Your task to perform on an android device: Go to Yahoo.com Image 0: 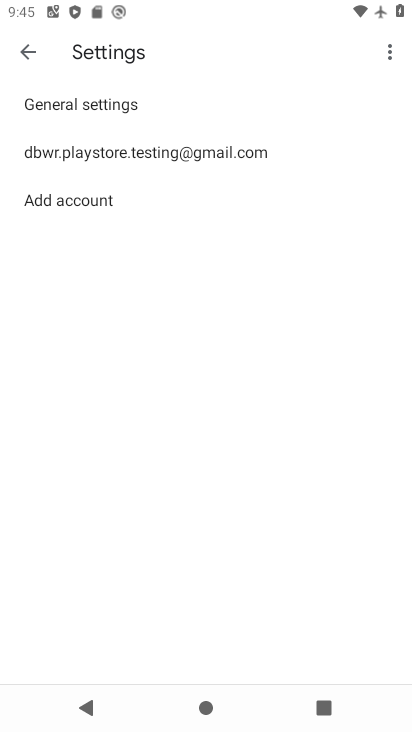
Step 0: press home button
Your task to perform on an android device: Go to Yahoo.com Image 1: 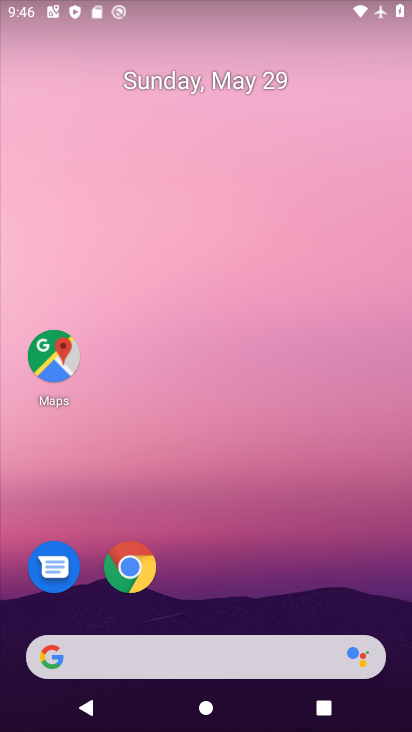
Step 1: click (128, 565)
Your task to perform on an android device: Go to Yahoo.com Image 2: 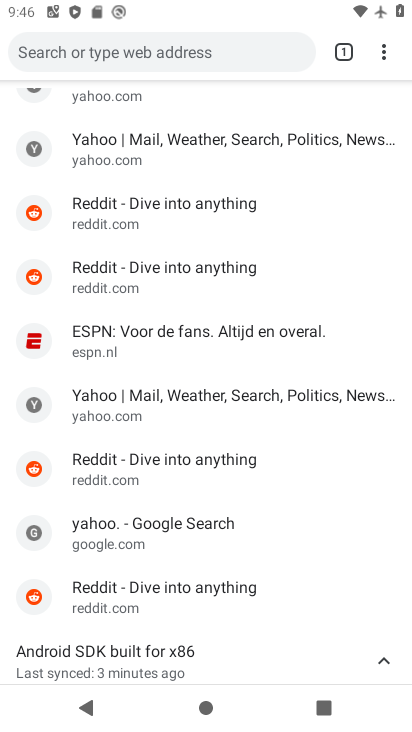
Step 2: click (128, 54)
Your task to perform on an android device: Go to Yahoo.com Image 3: 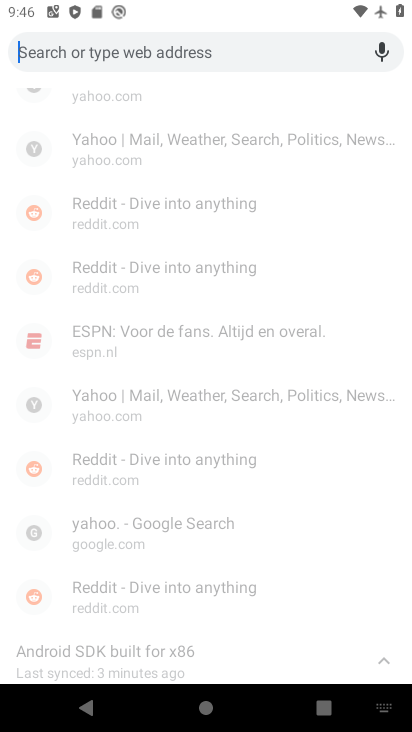
Step 3: type "yahoo.com"
Your task to perform on an android device: Go to Yahoo.com Image 4: 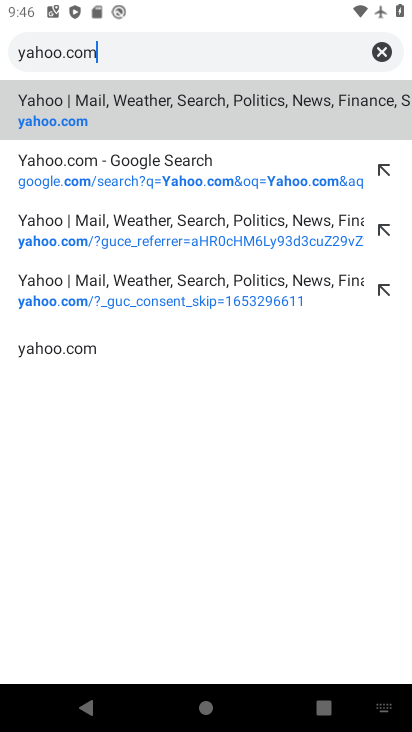
Step 4: click (75, 111)
Your task to perform on an android device: Go to Yahoo.com Image 5: 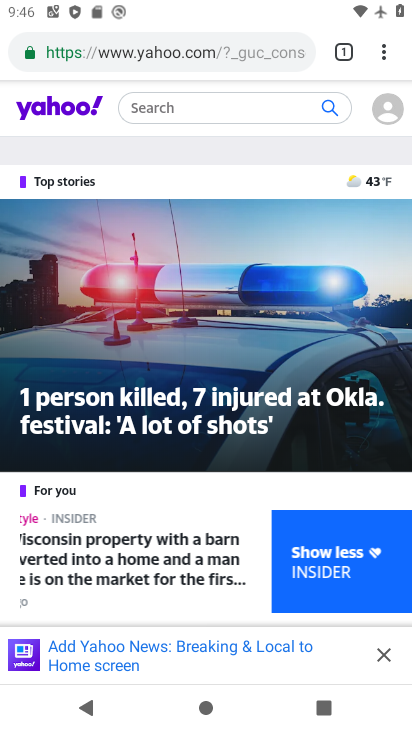
Step 5: task complete